Your task to perform on an android device: allow cookies in the chrome app Image 0: 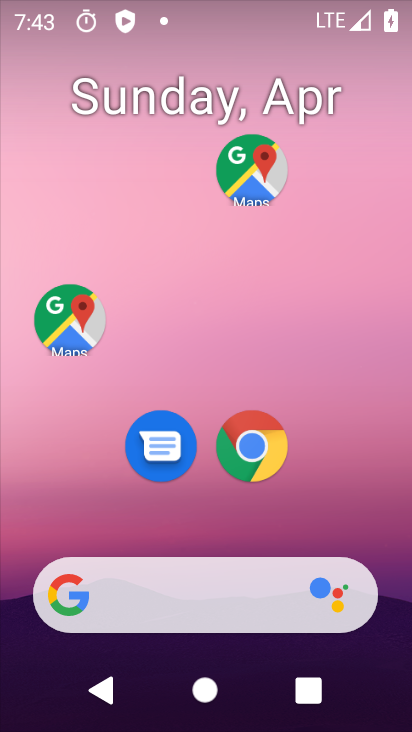
Step 0: drag from (220, 540) to (158, 18)
Your task to perform on an android device: allow cookies in the chrome app Image 1: 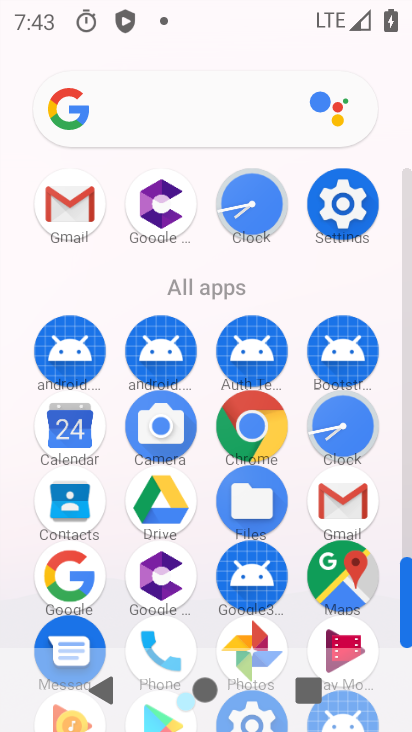
Step 1: click (239, 426)
Your task to perform on an android device: allow cookies in the chrome app Image 2: 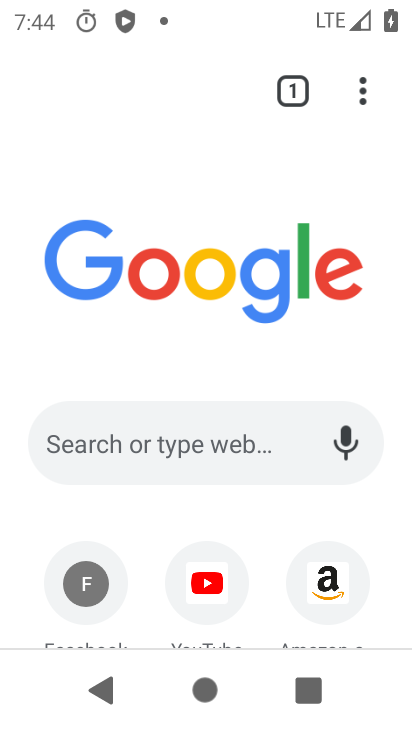
Step 2: drag from (360, 93) to (141, 471)
Your task to perform on an android device: allow cookies in the chrome app Image 3: 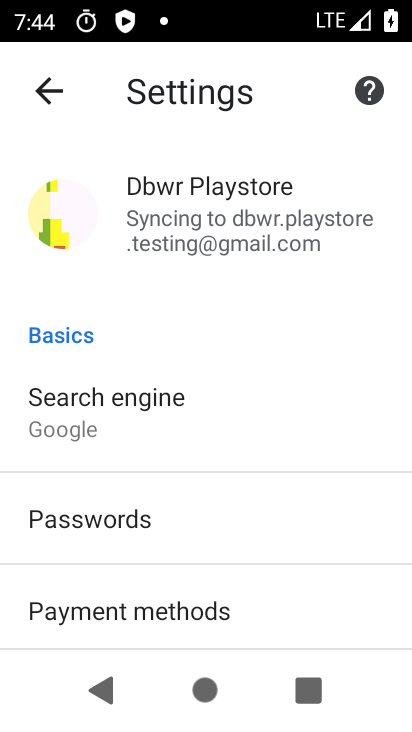
Step 3: drag from (189, 537) to (167, 229)
Your task to perform on an android device: allow cookies in the chrome app Image 4: 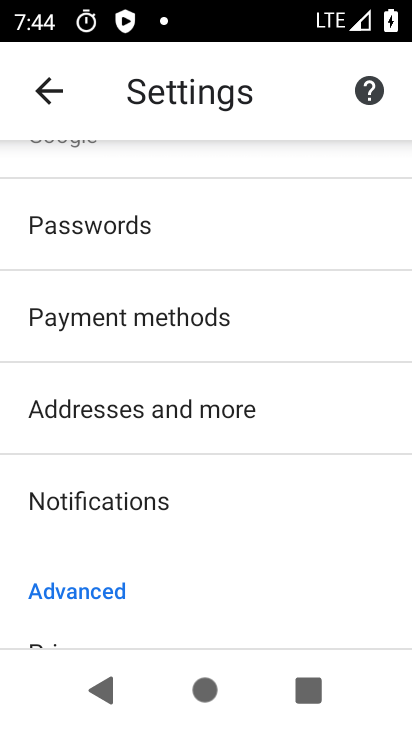
Step 4: drag from (170, 565) to (136, 302)
Your task to perform on an android device: allow cookies in the chrome app Image 5: 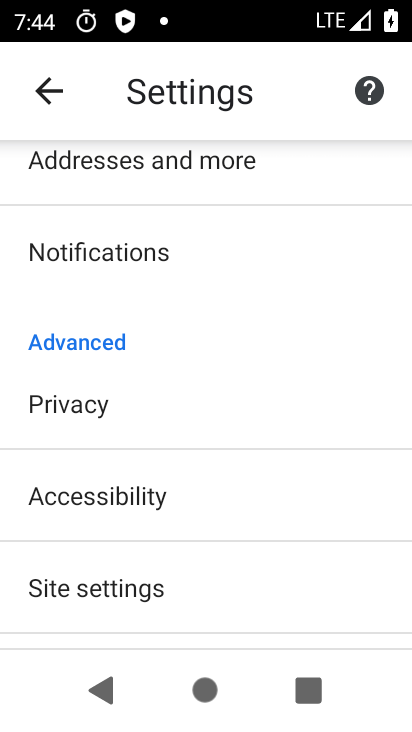
Step 5: click (119, 579)
Your task to perform on an android device: allow cookies in the chrome app Image 6: 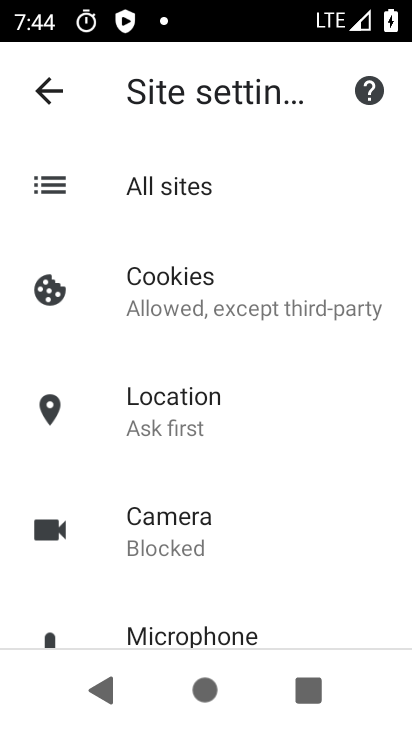
Step 6: drag from (143, 532) to (132, 447)
Your task to perform on an android device: allow cookies in the chrome app Image 7: 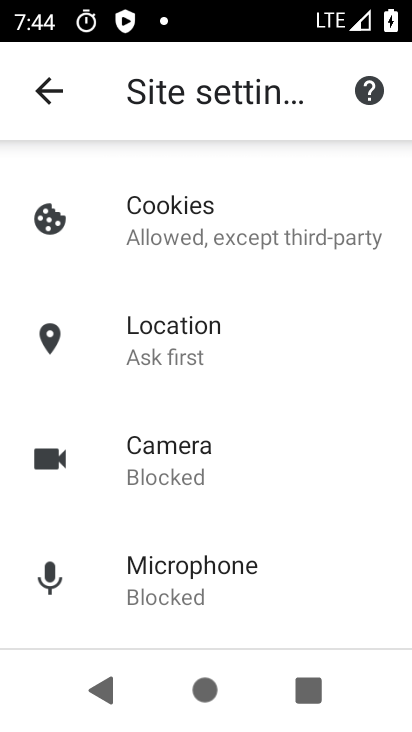
Step 7: click (132, 252)
Your task to perform on an android device: allow cookies in the chrome app Image 8: 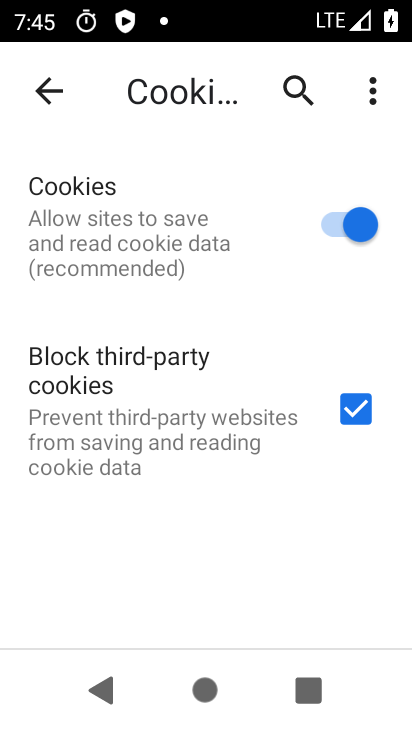
Step 8: task complete